Your task to perform on an android device: Is it going to rain this weekend? Image 0: 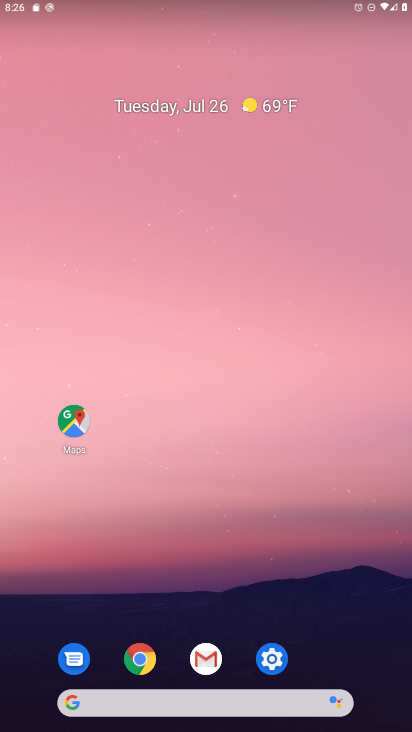
Step 0: click (153, 698)
Your task to perform on an android device: Is it going to rain this weekend? Image 1: 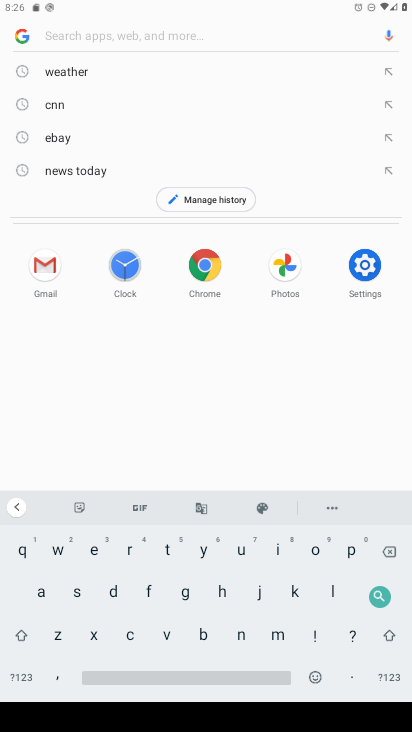
Step 1: click (271, 553)
Your task to perform on an android device: Is it going to rain this weekend? Image 2: 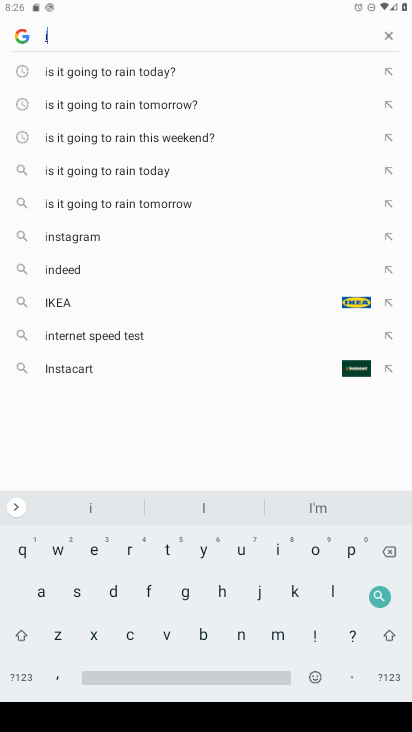
Step 2: click (175, 133)
Your task to perform on an android device: Is it going to rain this weekend? Image 3: 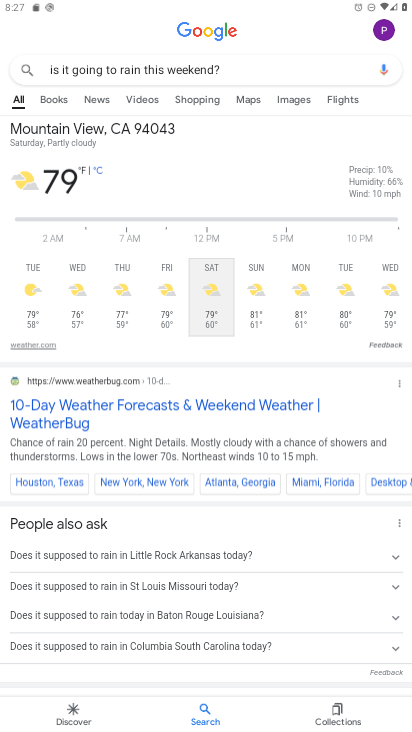
Step 3: task complete